Your task to perform on an android device: find photos in the google photos app Image 0: 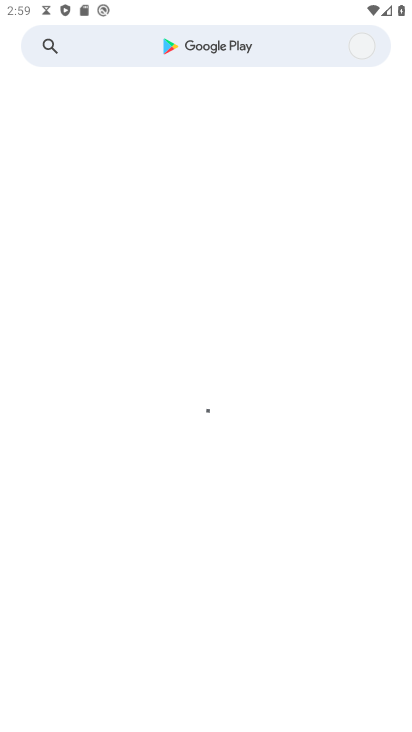
Step 0: press home button
Your task to perform on an android device: find photos in the google photos app Image 1: 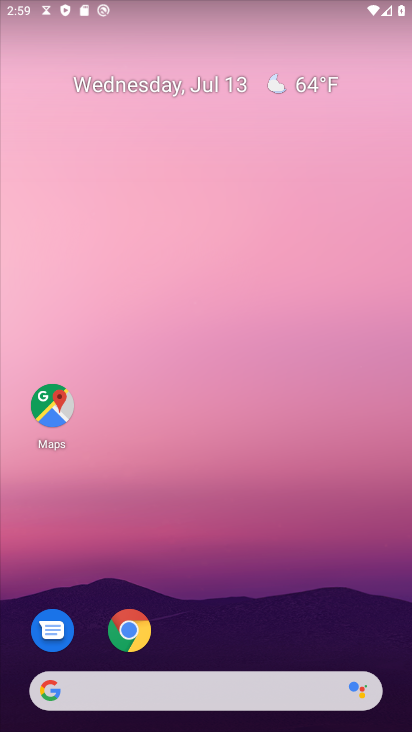
Step 1: drag from (280, 590) to (304, 53)
Your task to perform on an android device: find photos in the google photos app Image 2: 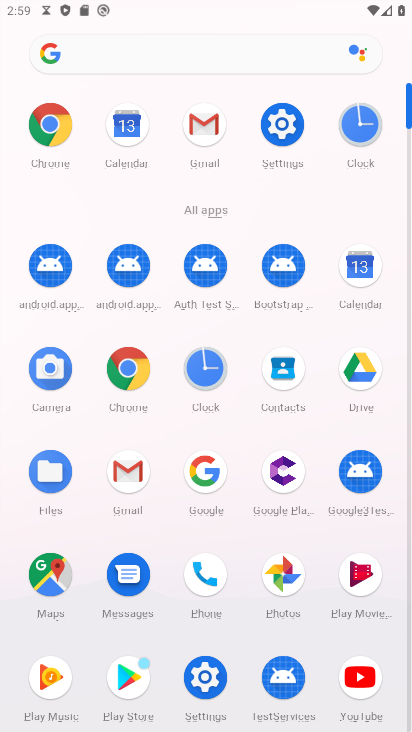
Step 2: click (283, 567)
Your task to perform on an android device: find photos in the google photos app Image 3: 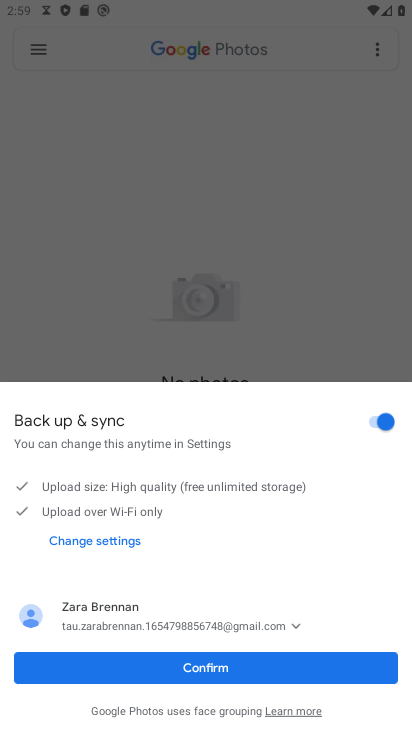
Step 3: click (187, 669)
Your task to perform on an android device: find photos in the google photos app Image 4: 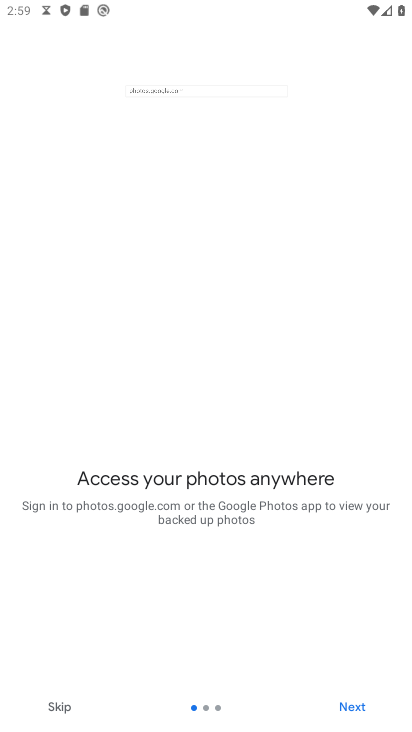
Step 4: click (354, 710)
Your task to perform on an android device: find photos in the google photos app Image 5: 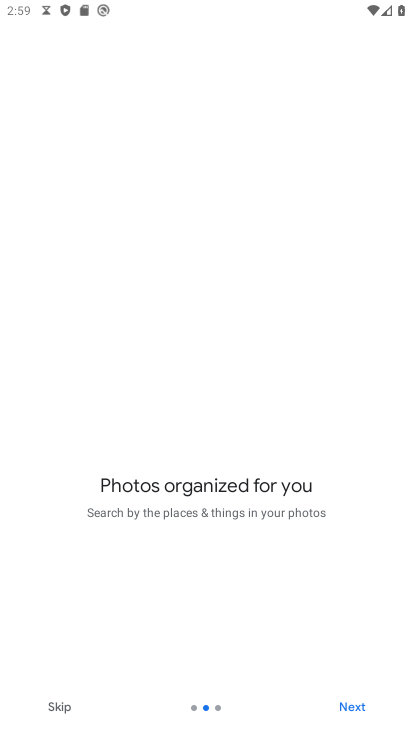
Step 5: click (353, 711)
Your task to perform on an android device: find photos in the google photos app Image 6: 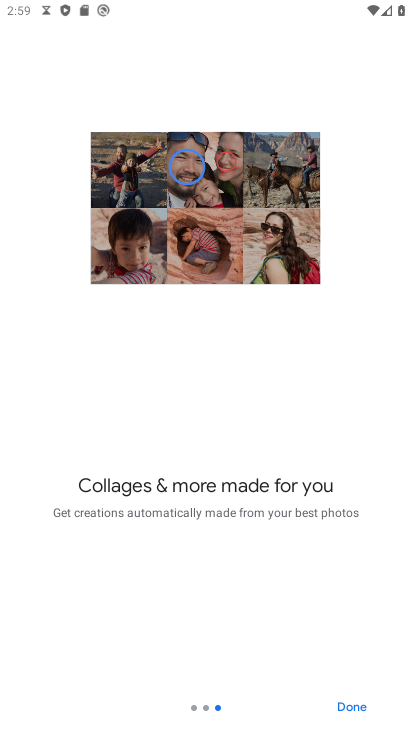
Step 6: click (353, 711)
Your task to perform on an android device: find photos in the google photos app Image 7: 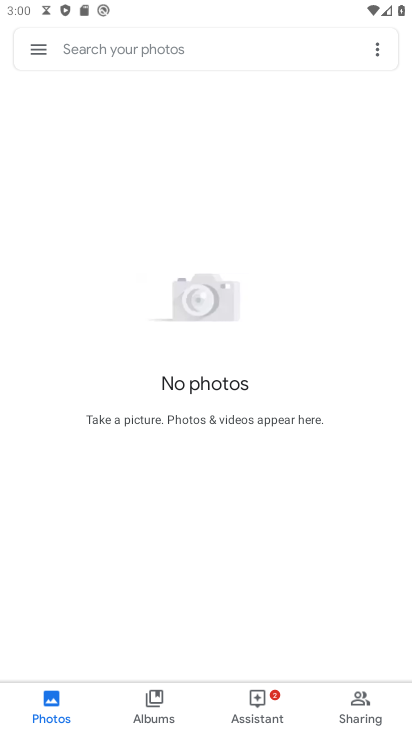
Step 7: task complete